Your task to perform on an android device: What's the weather going to be this weekend? Image 0: 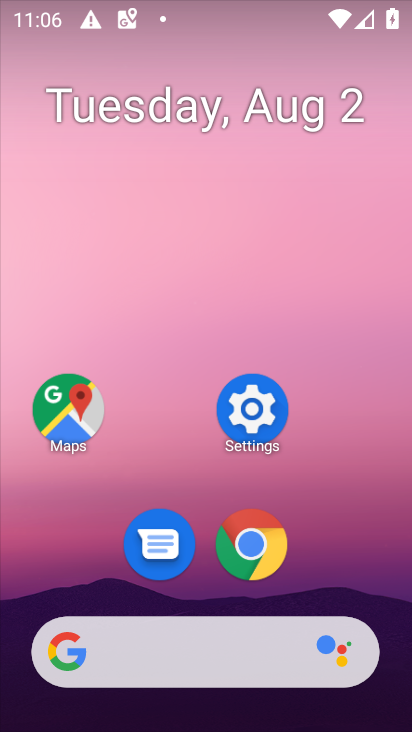
Step 0: press home button
Your task to perform on an android device: What's the weather going to be this weekend? Image 1: 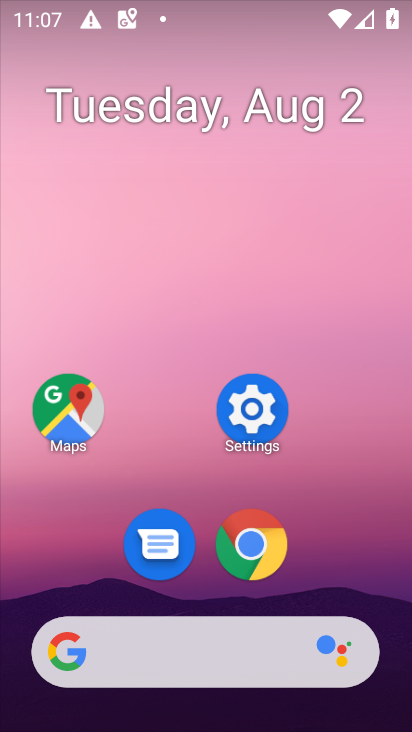
Step 1: drag from (256, 502) to (351, 183)
Your task to perform on an android device: What's the weather going to be this weekend? Image 2: 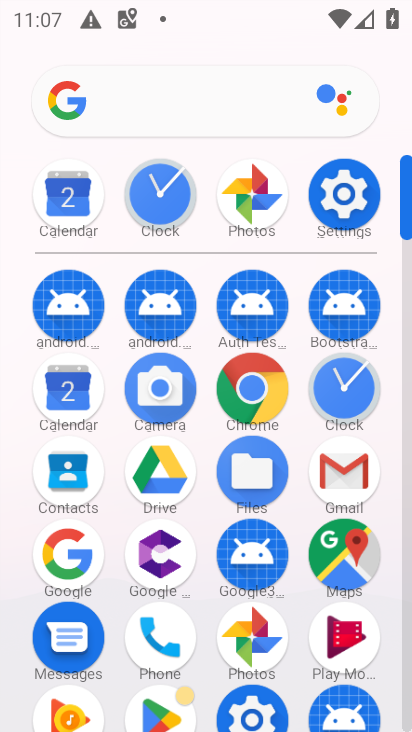
Step 2: press home button
Your task to perform on an android device: What's the weather going to be this weekend? Image 3: 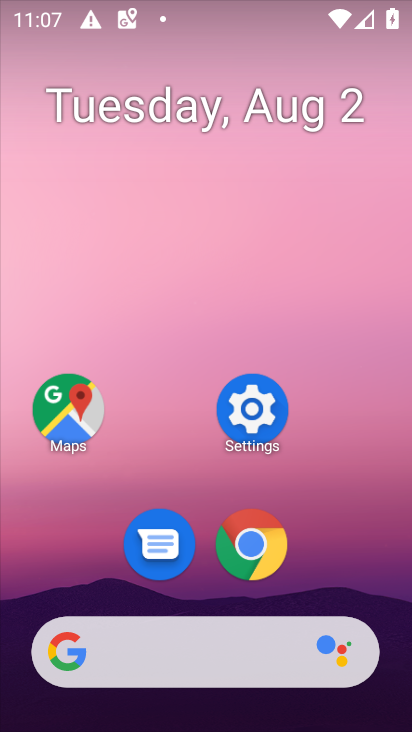
Step 3: click (140, 631)
Your task to perform on an android device: What's the weather going to be this weekend? Image 4: 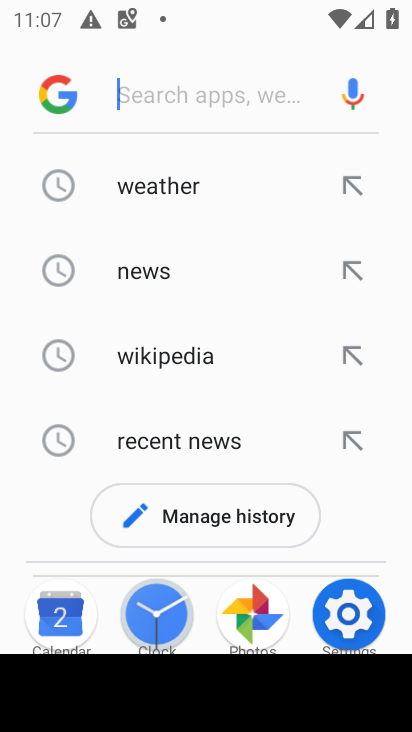
Step 4: click (165, 189)
Your task to perform on an android device: What's the weather going to be this weekend? Image 5: 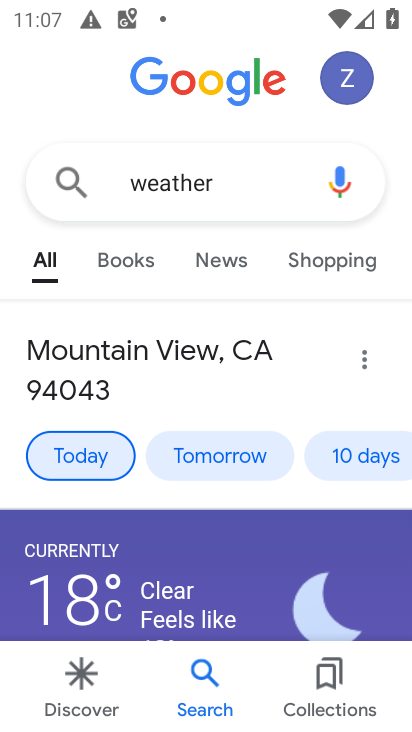
Step 5: click (368, 456)
Your task to perform on an android device: What's the weather going to be this weekend? Image 6: 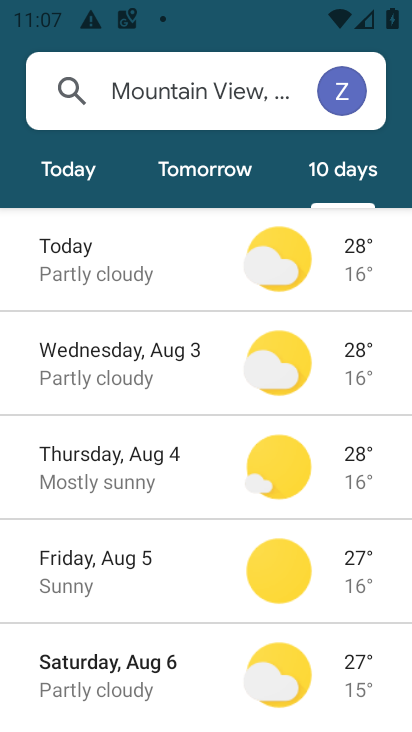
Step 6: task complete